Your task to perform on an android device: all mails in gmail Image 0: 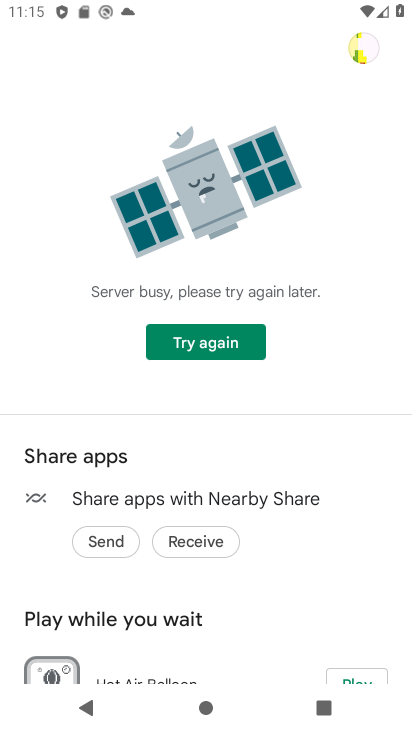
Step 0: press home button
Your task to perform on an android device: all mails in gmail Image 1: 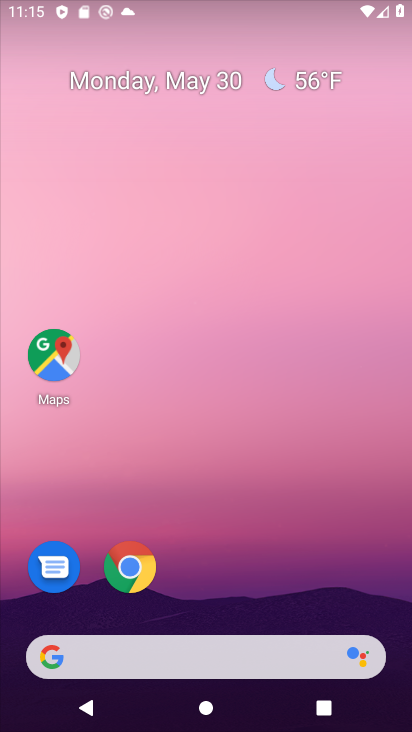
Step 1: drag from (244, 612) to (274, 54)
Your task to perform on an android device: all mails in gmail Image 2: 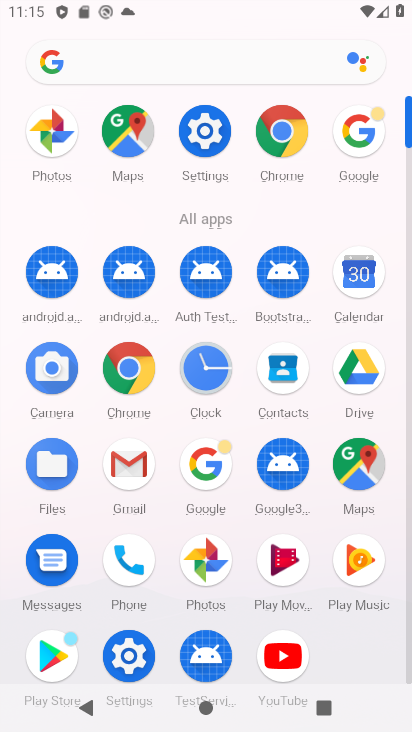
Step 2: click (124, 464)
Your task to perform on an android device: all mails in gmail Image 3: 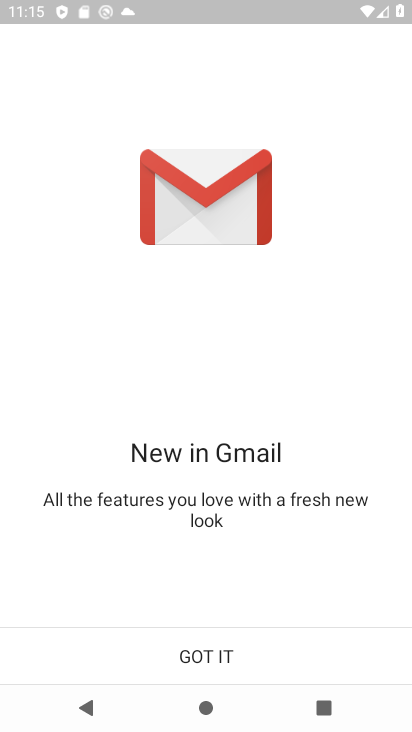
Step 3: click (197, 647)
Your task to perform on an android device: all mails in gmail Image 4: 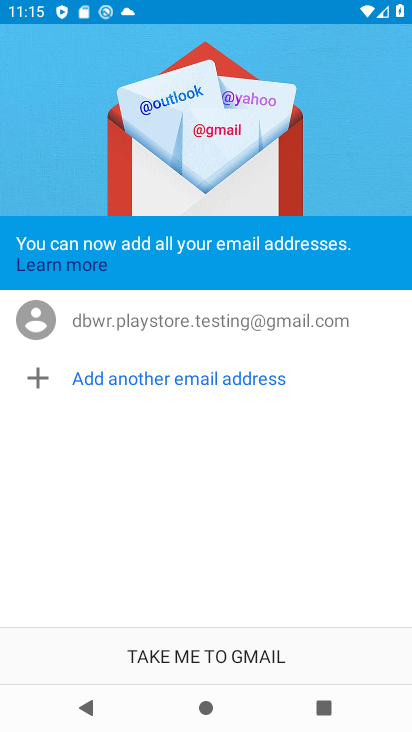
Step 4: click (206, 648)
Your task to perform on an android device: all mails in gmail Image 5: 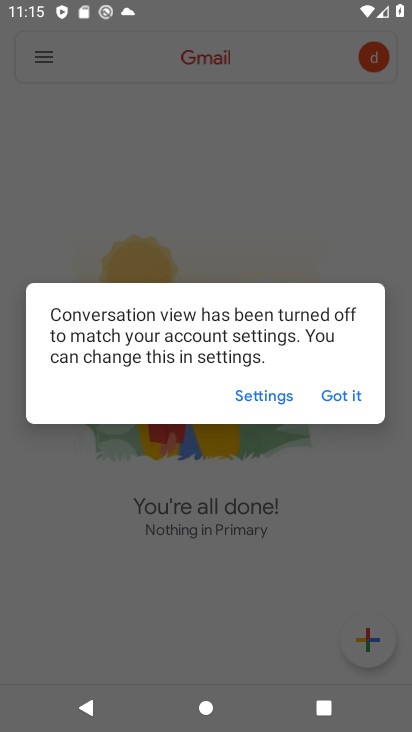
Step 5: click (335, 395)
Your task to perform on an android device: all mails in gmail Image 6: 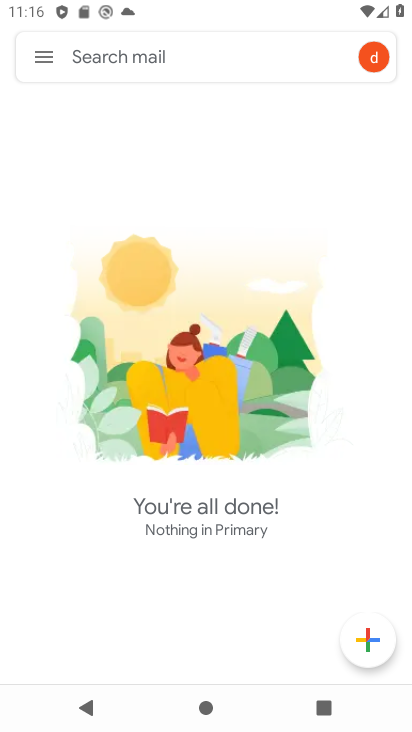
Step 6: task complete